Your task to perform on an android device: Go to Reddit.com Image 0: 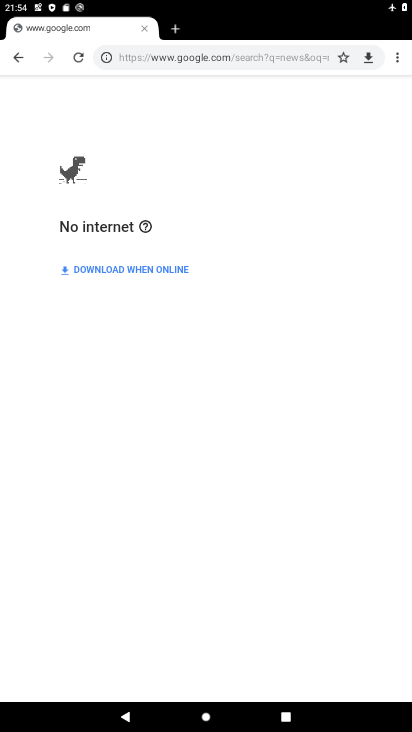
Step 0: drag from (365, 658) to (234, 0)
Your task to perform on an android device: Go to Reddit.com Image 1: 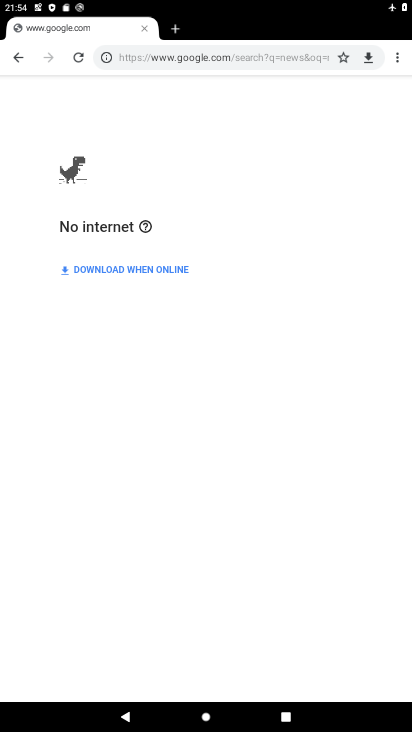
Step 1: press home button
Your task to perform on an android device: Go to Reddit.com Image 2: 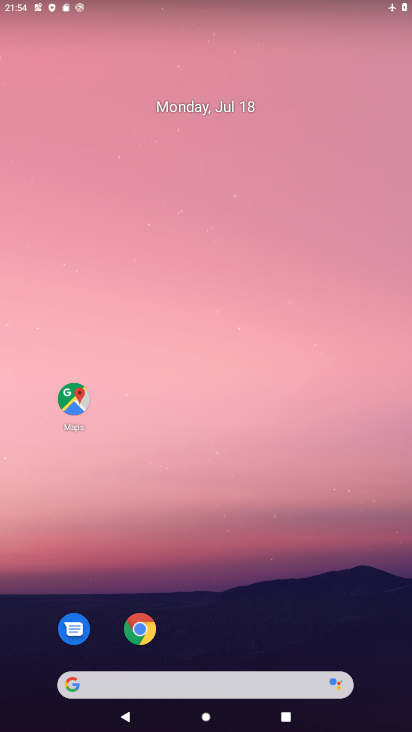
Step 2: drag from (379, 628) to (214, 70)
Your task to perform on an android device: Go to Reddit.com Image 3: 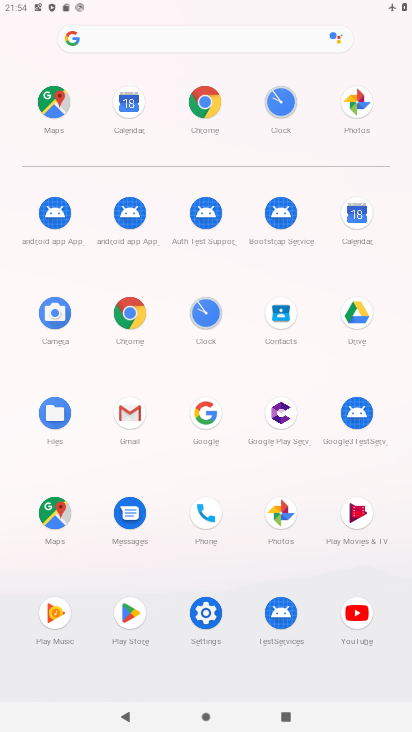
Step 3: click (205, 101)
Your task to perform on an android device: Go to Reddit.com Image 4: 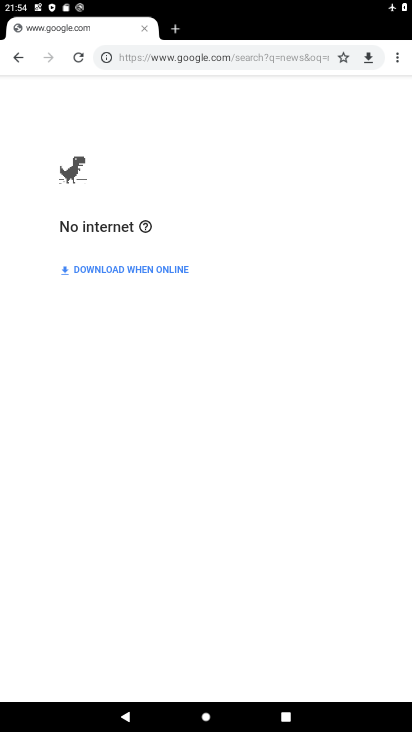
Step 4: click (206, 54)
Your task to perform on an android device: Go to Reddit.com Image 5: 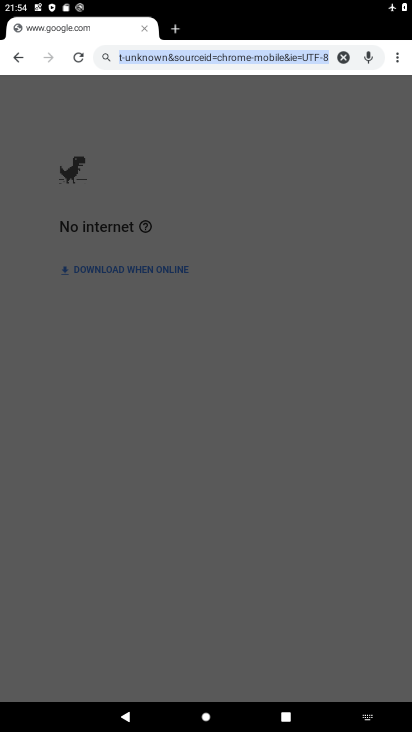
Step 5: type "reddit.com"
Your task to perform on an android device: Go to Reddit.com Image 6: 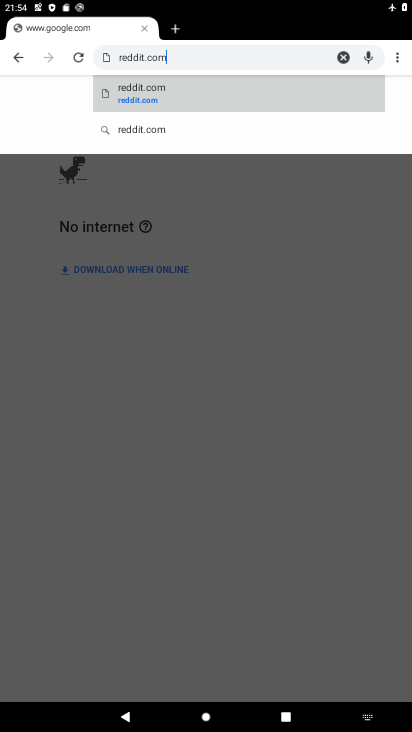
Step 6: click (164, 90)
Your task to perform on an android device: Go to Reddit.com Image 7: 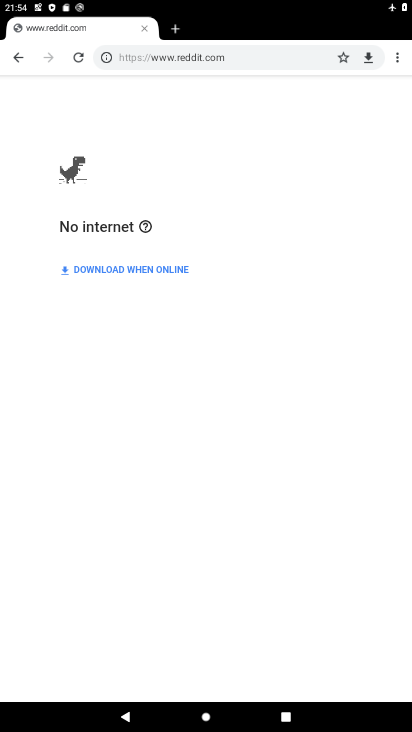
Step 7: task complete